Your task to perform on an android device: Go to accessibility settings Image 0: 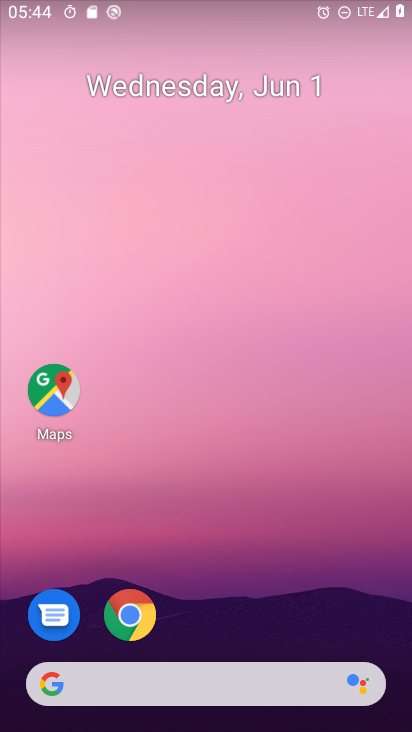
Step 0: drag from (188, 652) to (198, 47)
Your task to perform on an android device: Go to accessibility settings Image 1: 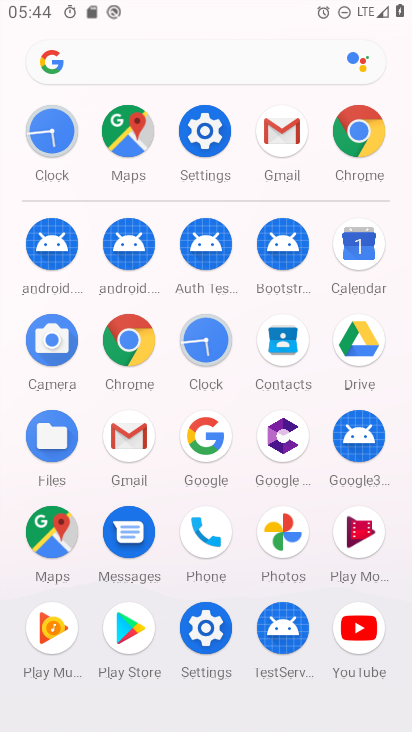
Step 1: click (202, 138)
Your task to perform on an android device: Go to accessibility settings Image 2: 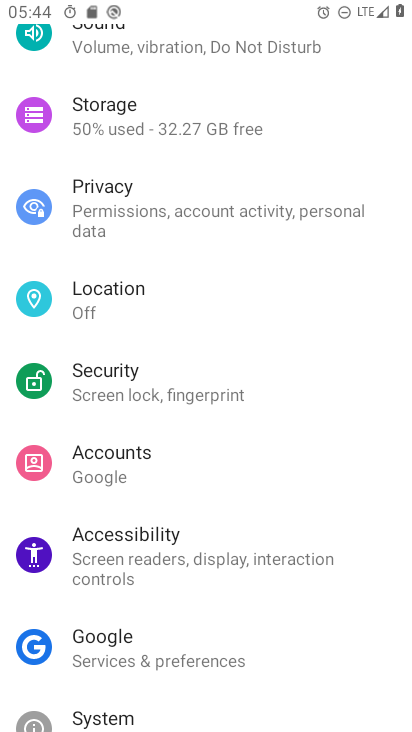
Step 2: click (195, 549)
Your task to perform on an android device: Go to accessibility settings Image 3: 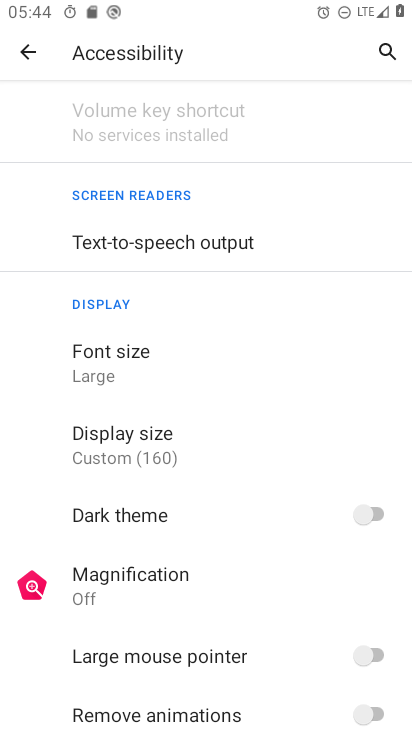
Step 3: task complete